Your task to perform on an android device: set default search engine in the chrome app Image 0: 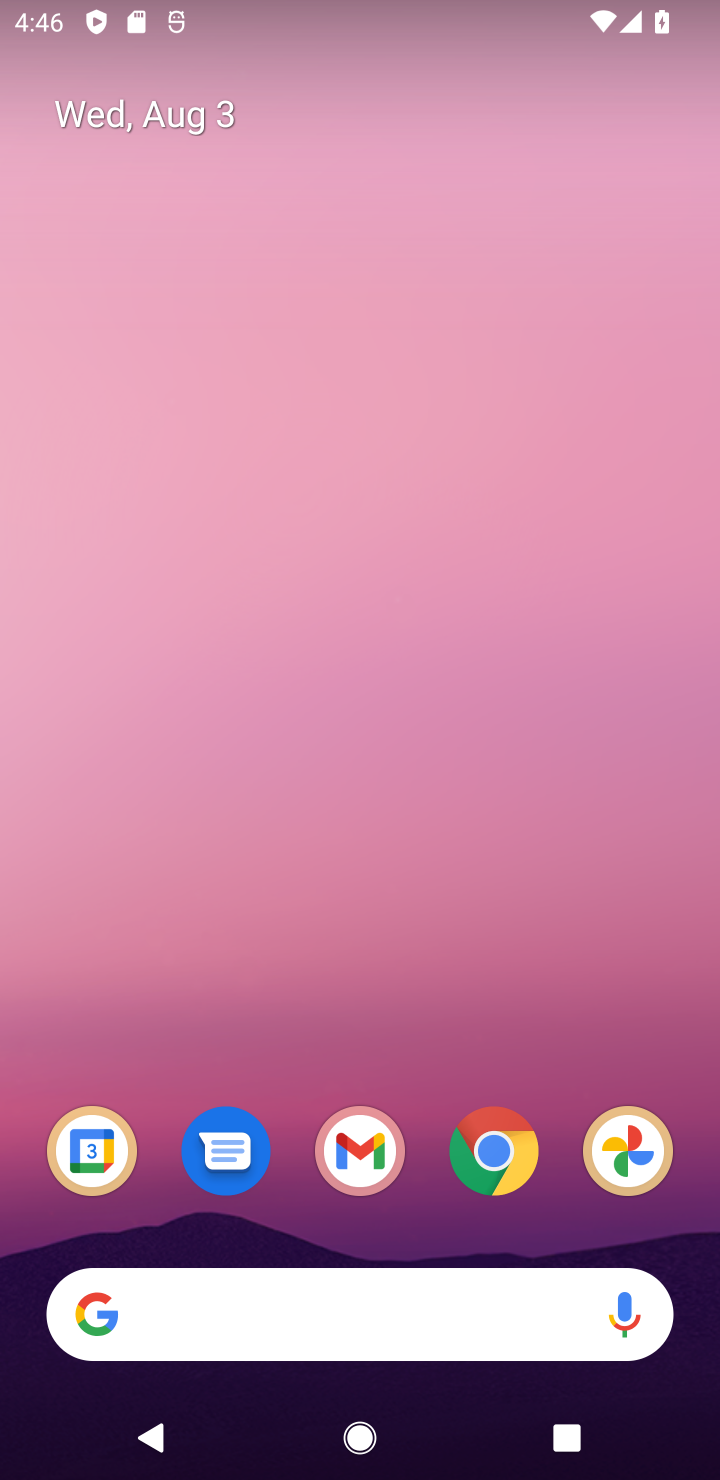
Step 0: click (505, 1152)
Your task to perform on an android device: set default search engine in the chrome app Image 1: 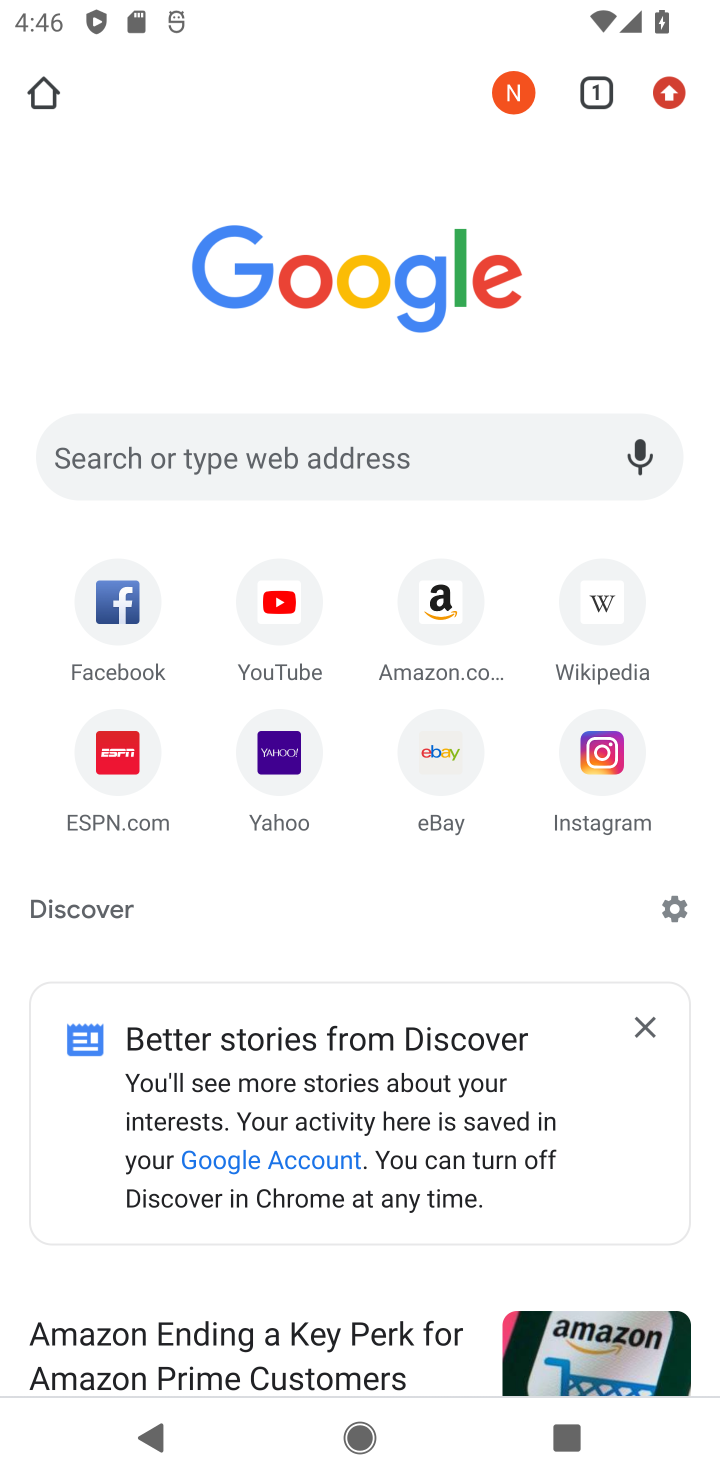
Step 1: click (677, 80)
Your task to perform on an android device: set default search engine in the chrome app Image 2: 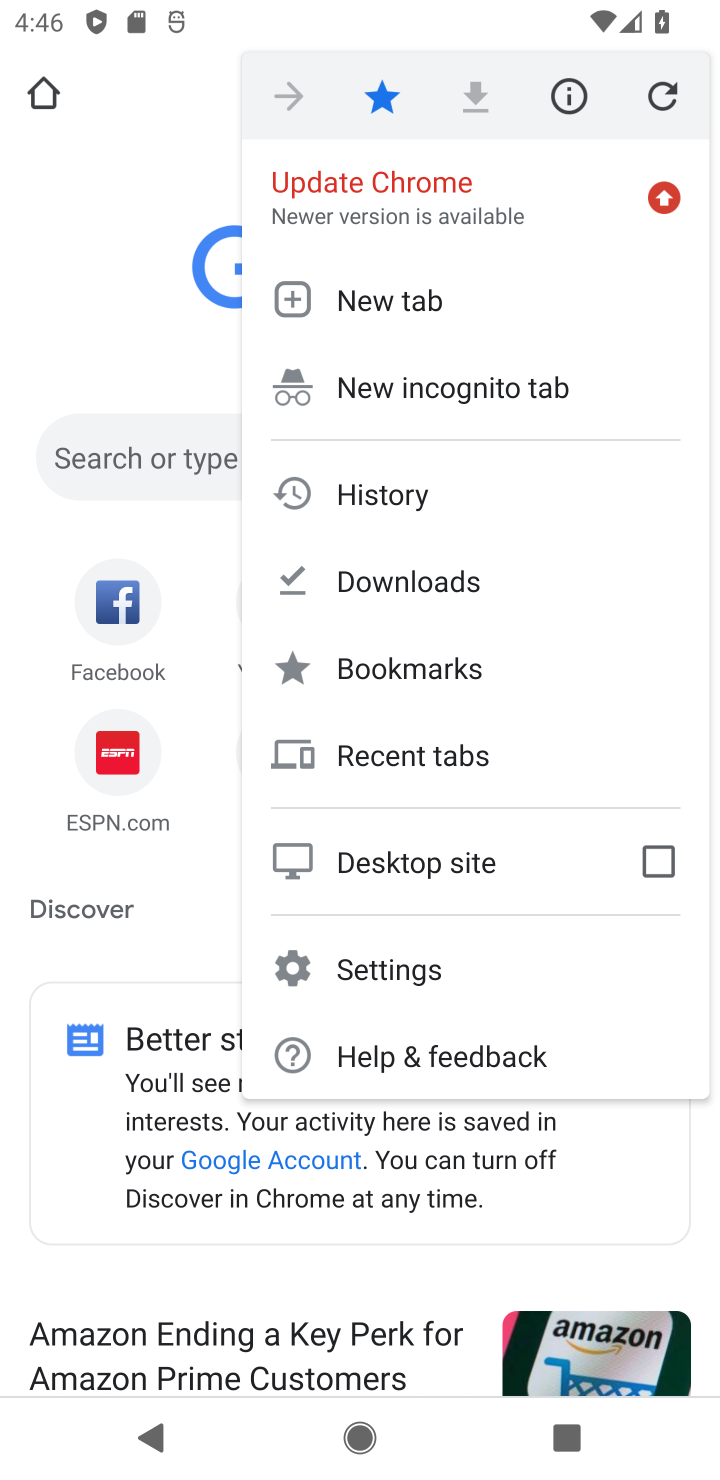
Step 2: click (355, 965)
Your task to perform on an android device: set default search engine in the chrome app Image 3: 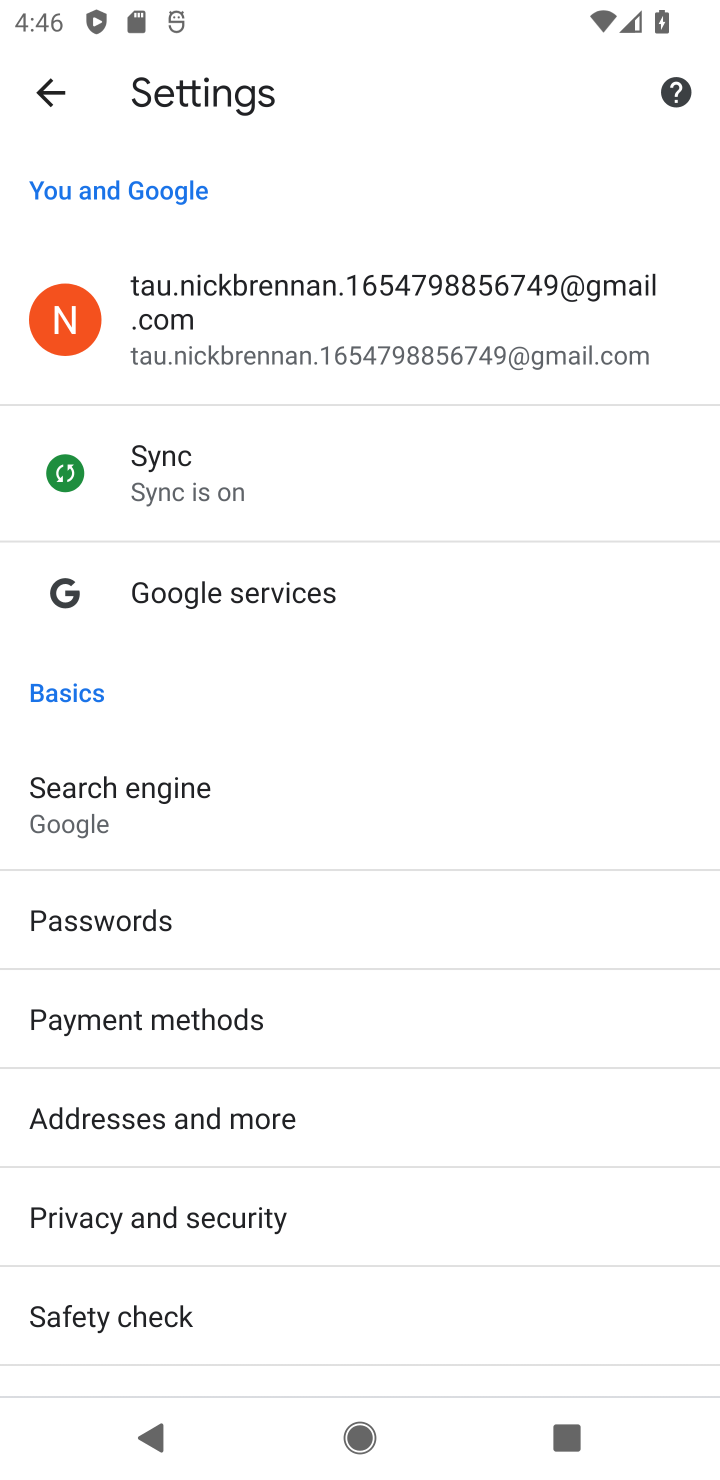
Step 3: click (289, 778)
Your task to perform on an android device: set default search engine in the chrome app Image 4: 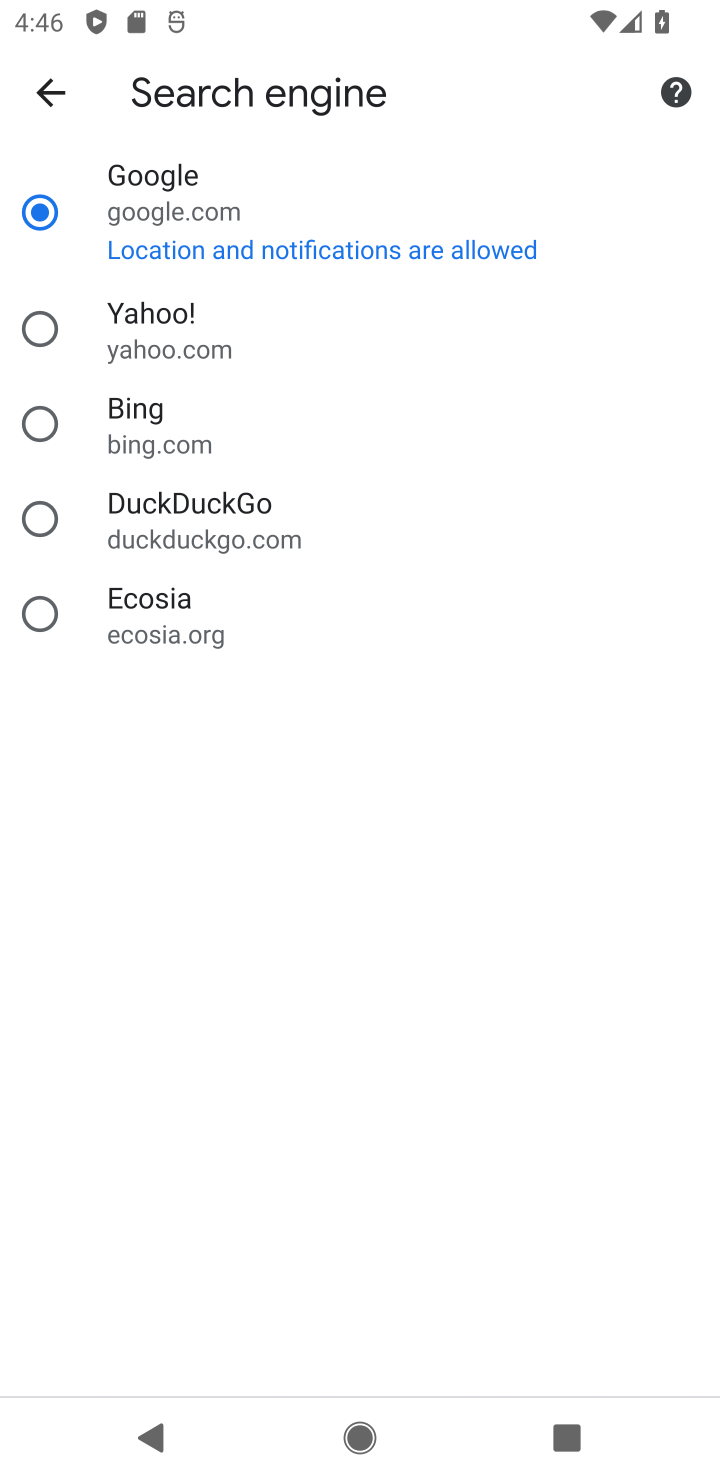
Step 4: click (128, 353)
Your task to perform on an android device: set default search engine in the chrome app Image 5: 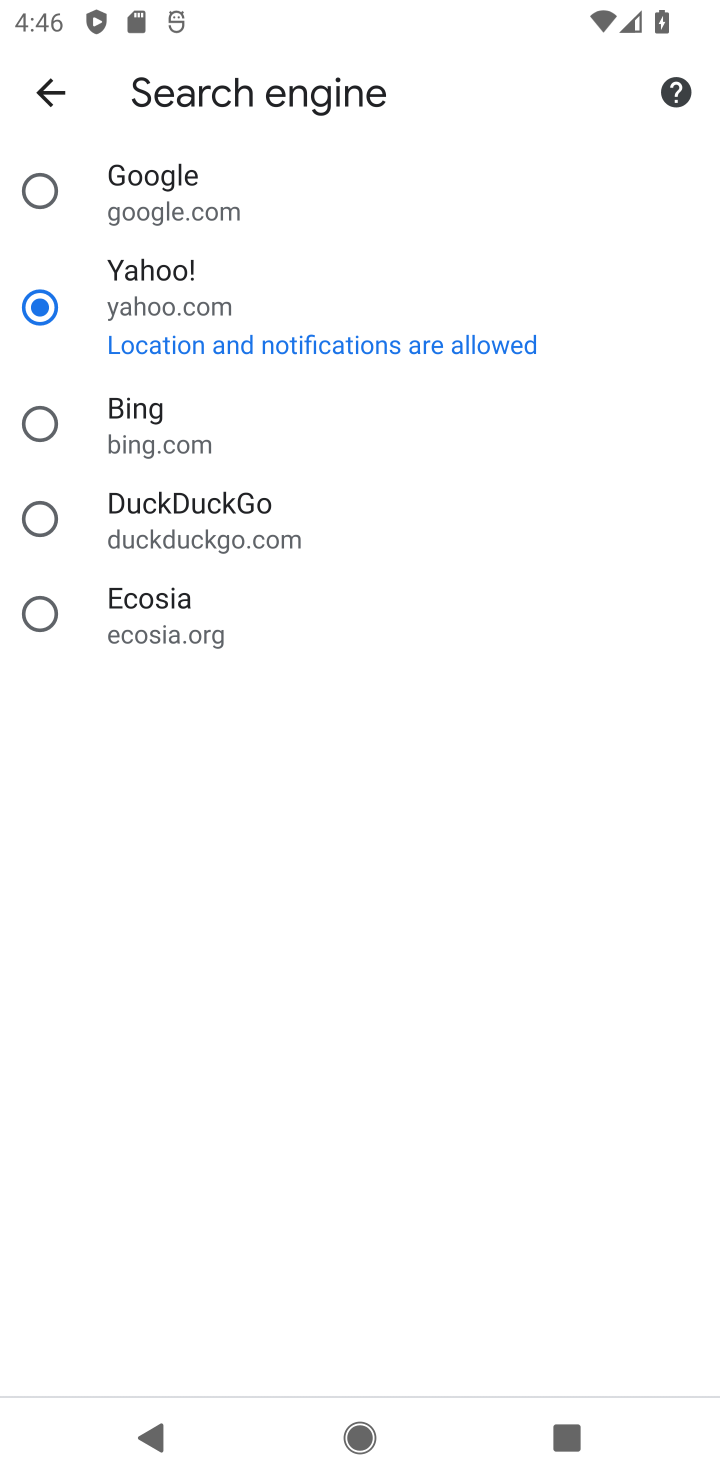
Step 5: task complete